Your task to perform on an android device: Open notification settings Image 0: 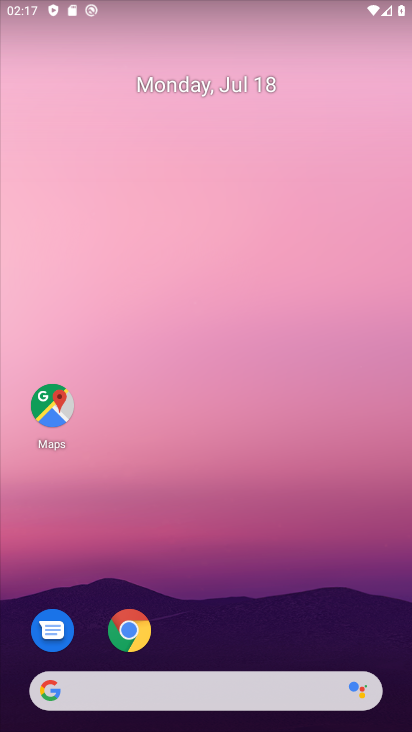
Step 0: drag from (219, 676) to (227, 57)
Your task to perform on an android device: Open notification settings Image 1: 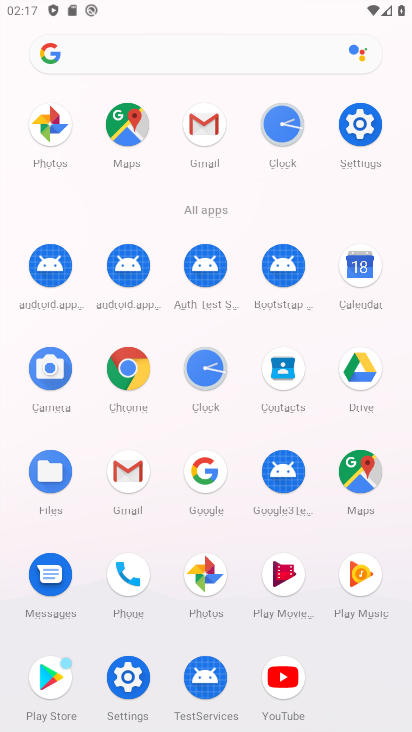
Step 1: click (353, 148)
Your task to perform on an android device: Open notification settings Image 2: 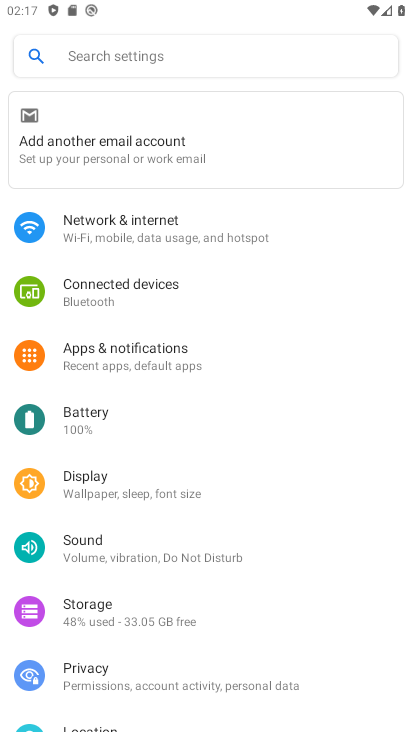
Step 2: click (163, 366)
Your task to perform on an android device: Open notification settings Image 3: 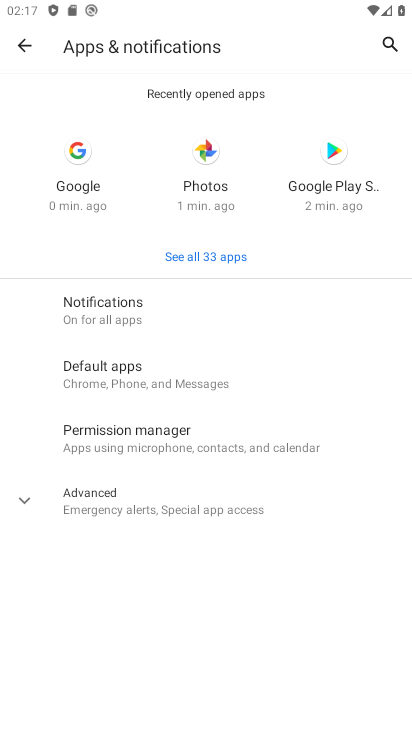
Step 3: task complete